Your task to perform on an android device: Search for Mexican restaurants on Maps Image 0: 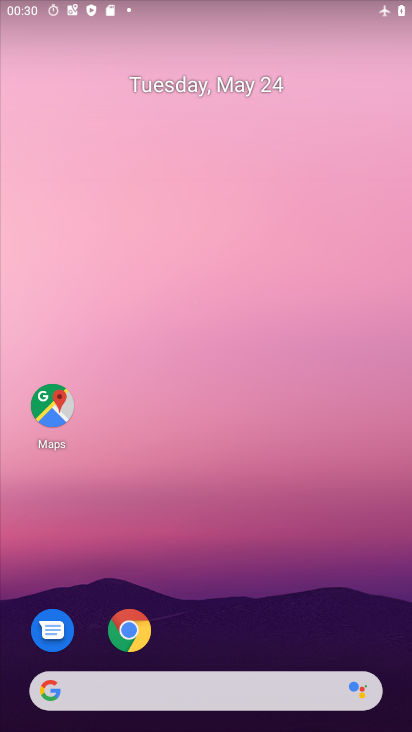
Step 0: click (51, 406)
Your task to perform on an android device: Search for Mexican restaurants on Maps Image 1: 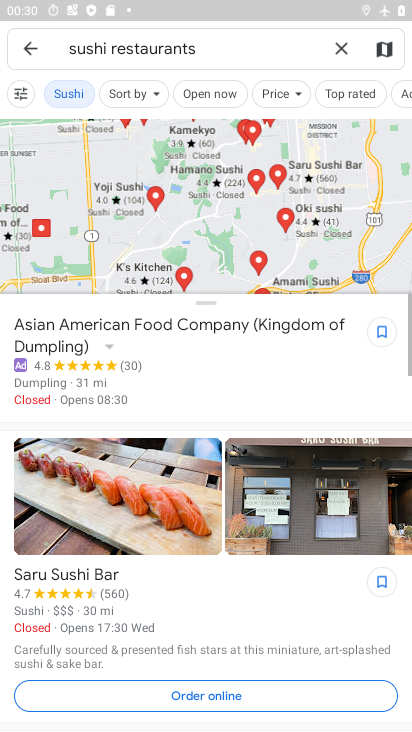
Step 1: click (346, 51)
Your task to perform on an android device: Search for Mexican restaurants on Maps Image 2: 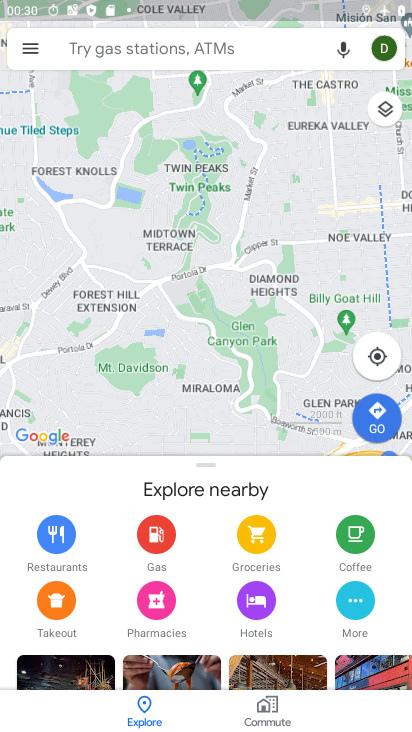
Step 2: click (75, 47)
Your task to perform on an android device: Search for Mexican restaurants on Maps Image 3: 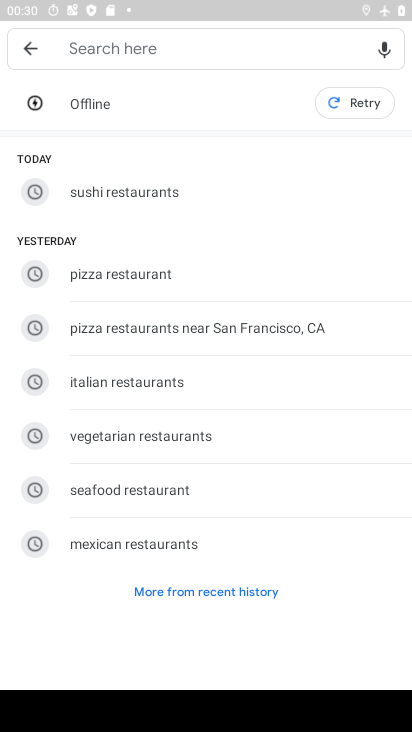
Step 3: type "mexican restaurants"
Your task to perform on an android device: Search for Mexican restaurants on Maps Image 4: 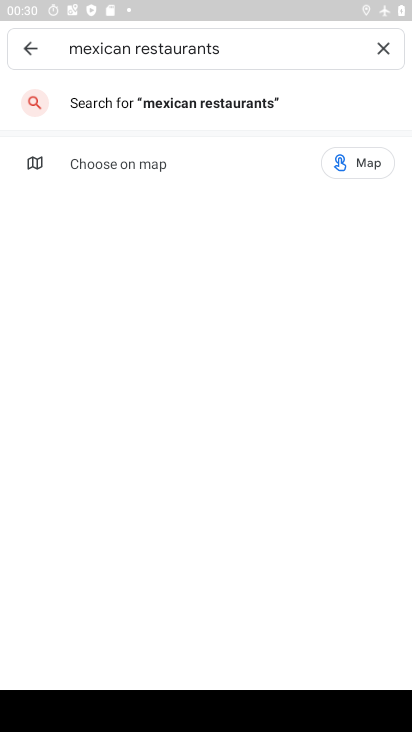
Step 4: click (182, 109)
Your task to perform on an android device: Search for Mexican restaurants on Maps Image 5: 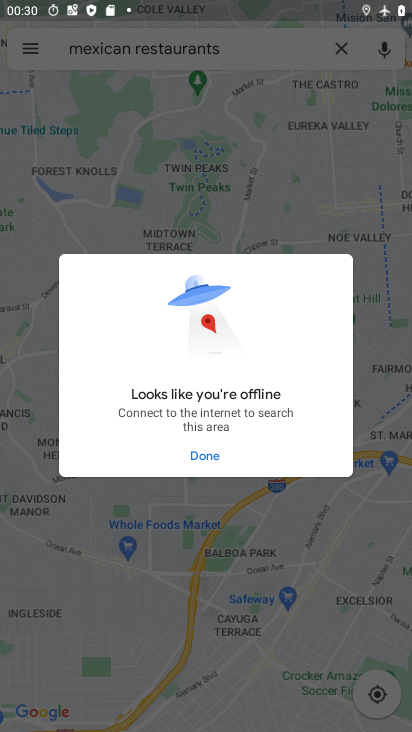
Step 5: task complete